Your task to perform on an android device: visit the assistant section in the google photos Image 0: 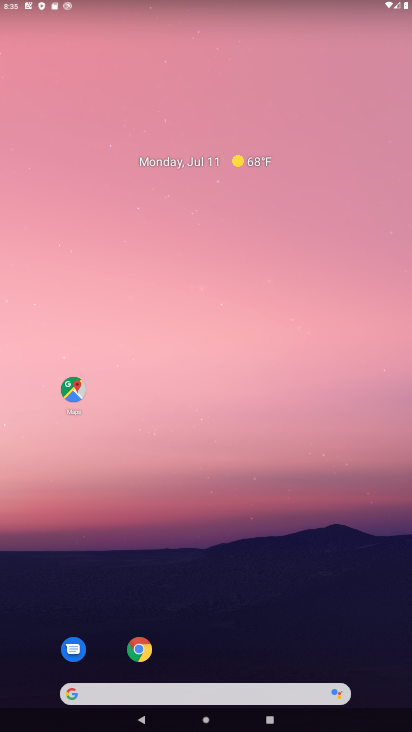
Step 0: drag from (258, 686) to (226, 77)
Your task to perform on an android device: visit the assistant section in the google photos Image 1: 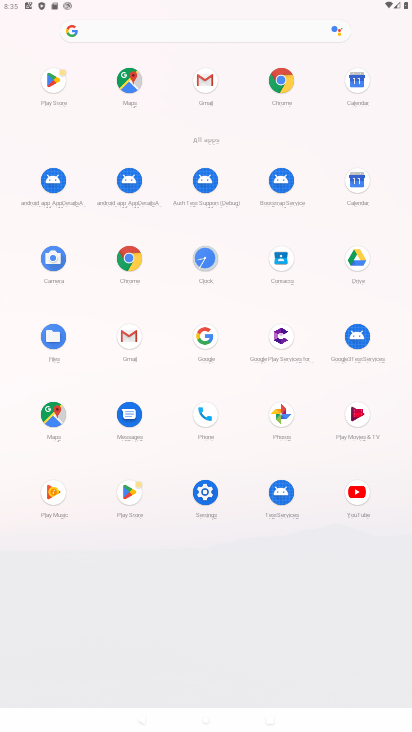
Step 1: click (275, 410)
Your task to perform on an android device: visit the assistant section in the google photos Image 2: 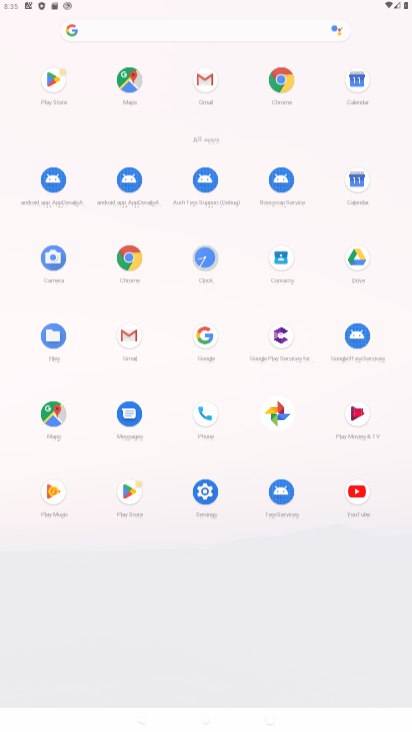
Step 2: click (274, 410)
Your task to perform on an android device: visit the assistant section in the google photos Image 3: 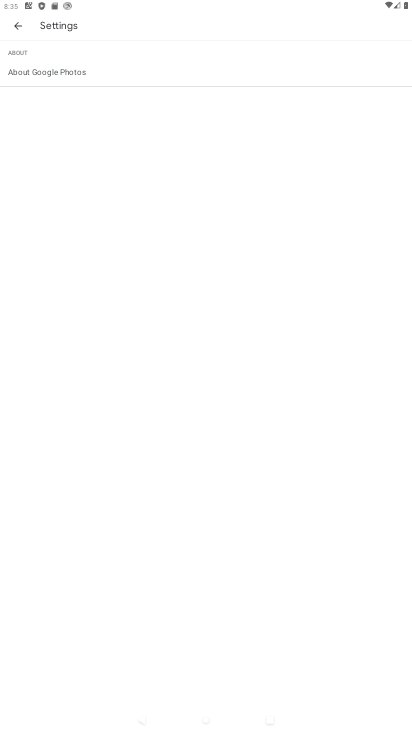
Step 3: click (15, 26)
Your task to perform on an android device: visit the assistant section in the google photos Image 4: 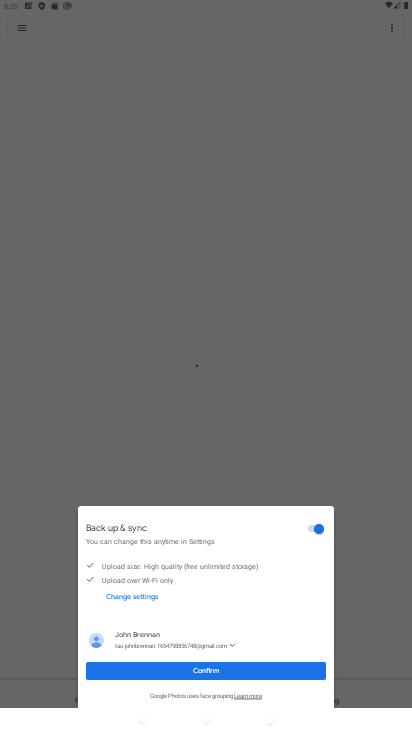
Step 4: click (240, 694)
Your task to perform on an android device: visit the assistant section in the google photos Image 5: 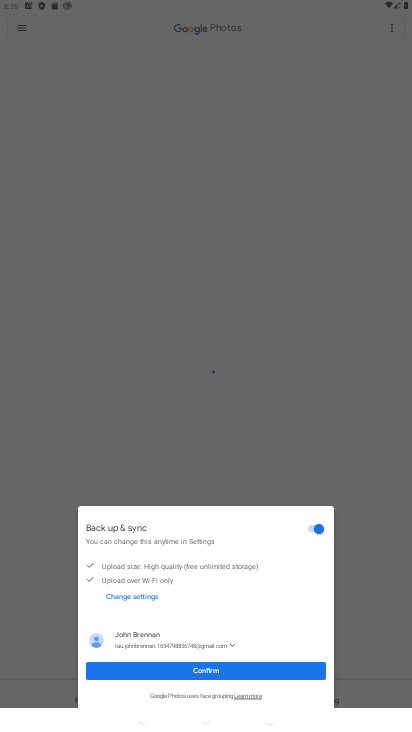
Step 5: click (182, 302)
Your task to perform on an android device: visit the assistant section in the google photos Image 6: 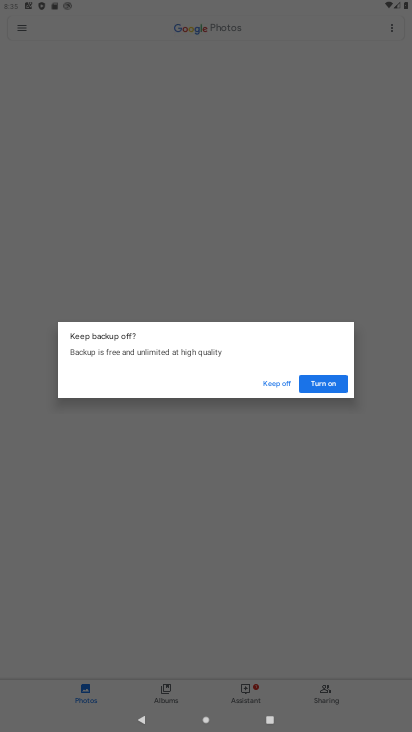
Step 6: click (240, 682)
Your task to perform on an android device: visit the assistant section in the google photos Image 7: 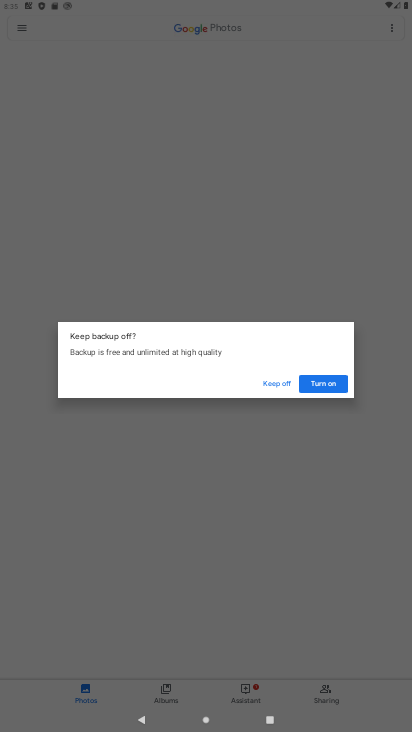
Step 7: click (240, 683)
Your task to perform on an android device: visit the assistant section in the google photos Image 8: 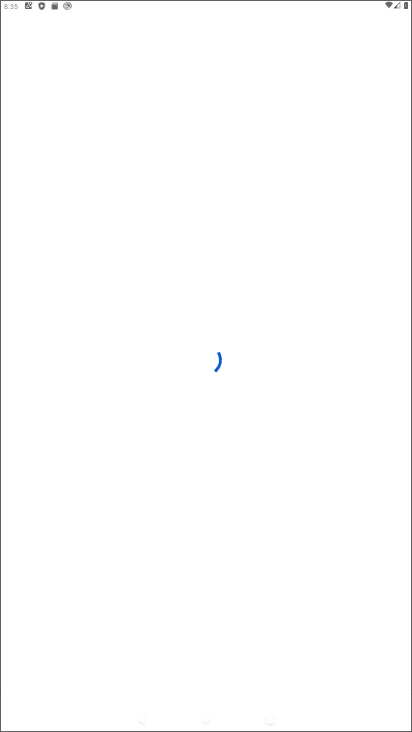
Step 8: click (272, 379)
Your task to perform on an android device: visit the assistant section in the google photos Image 9: 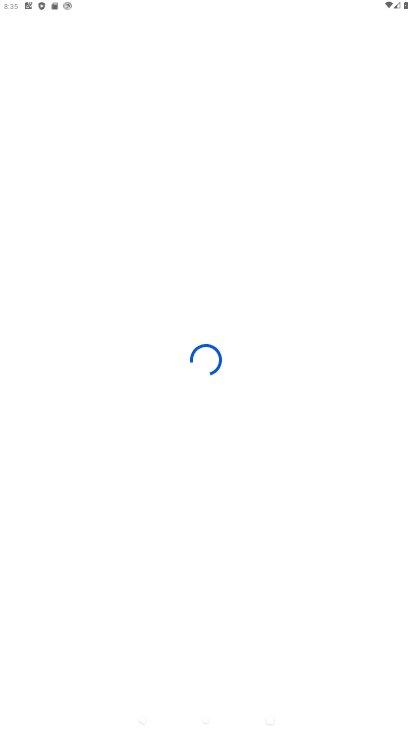
Step 9: click (246, 693)
Your task to perform on an android device: visit the assistant section in the google photos Image 10: 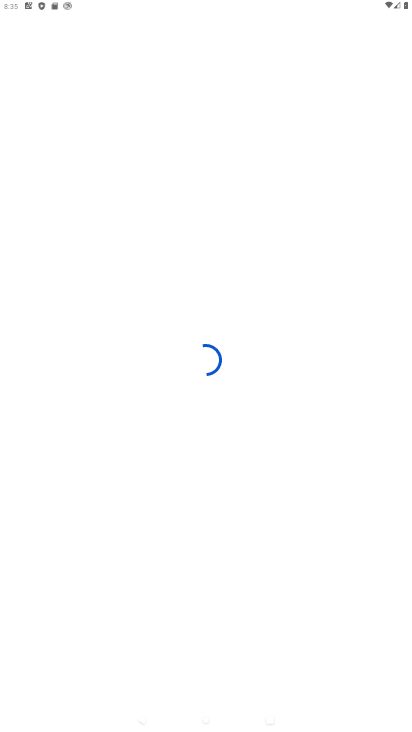
Step 10: click (244, 690)
Your task to perform on an android device: visit the assistant section in the google photos Image 11: 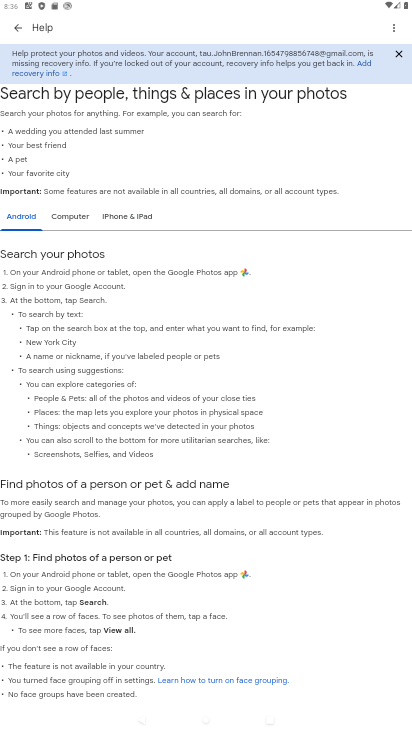
Step 11: task complete